Your task to perform on an android device: Turn off the flashlight Image 0: 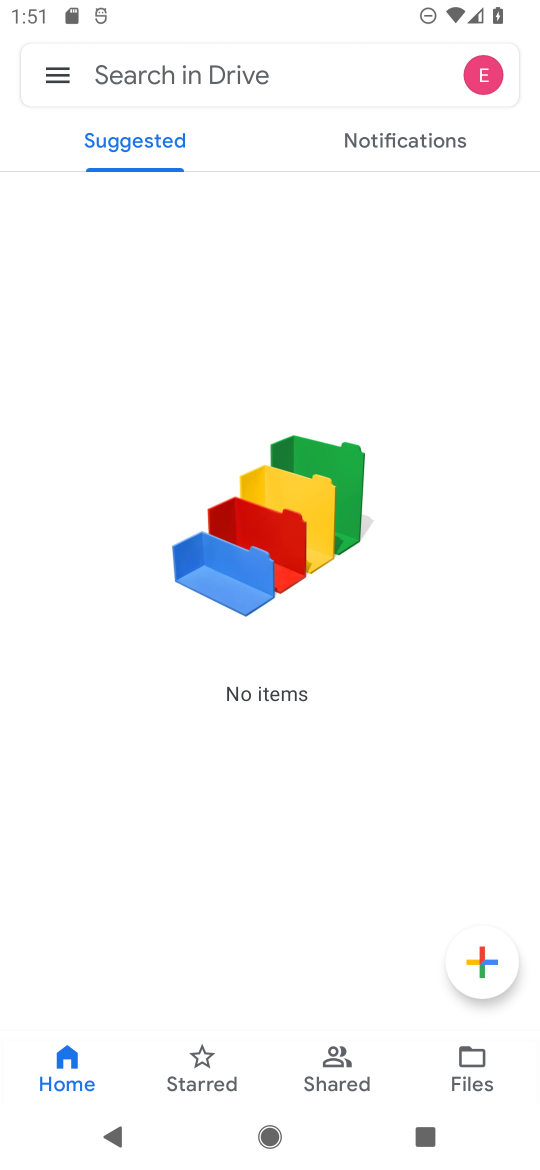
Step 0: press back button
Your task to perform on an android device: Turn off the flashlight Image 1: 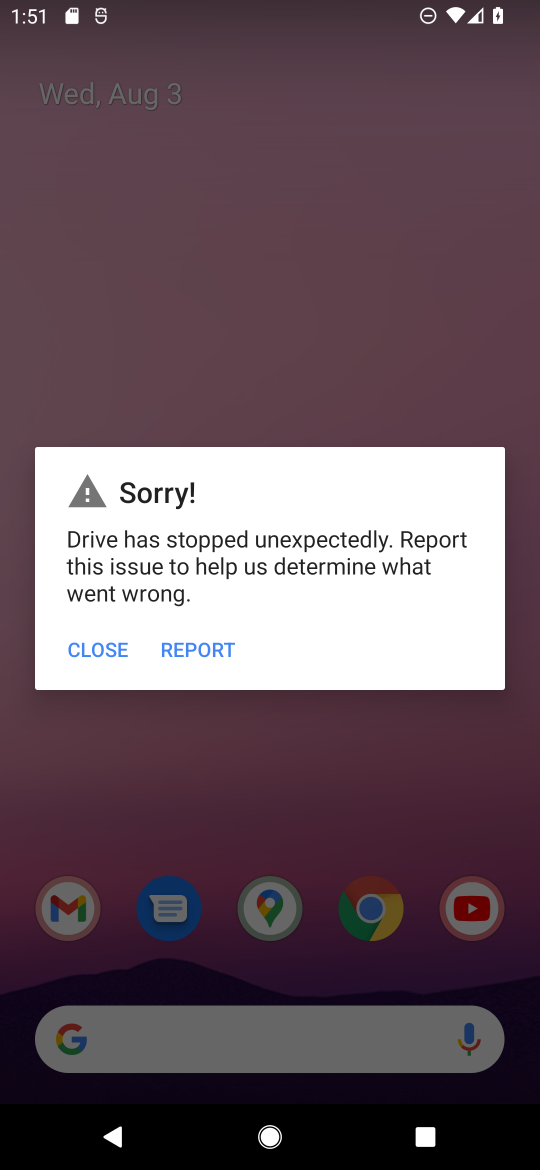
Step 1: task complete